Your task to perform on an android device: Open my contact list Image 0: 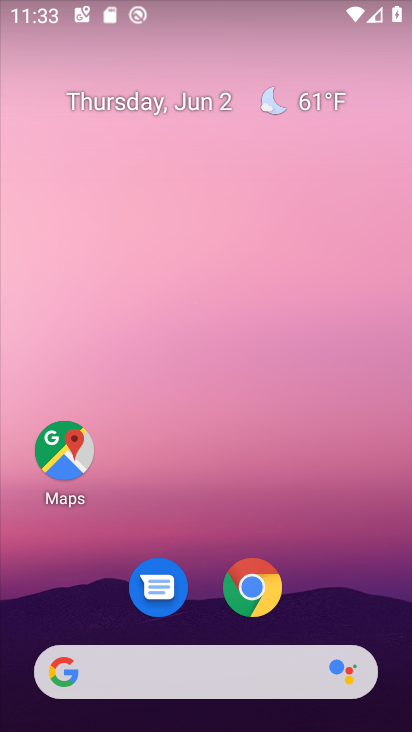
Step 0: drag from (209, 501) to (200, 0)
Your task to perform on an android device: Open my contact list Image 1: 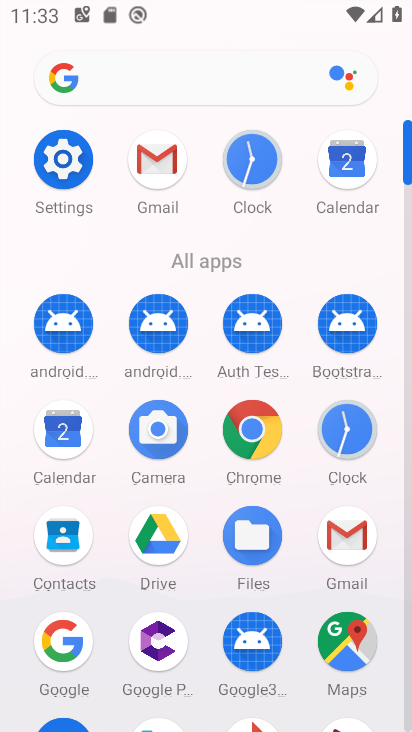
Step 1: click (66, 535)
Your task to perform on an android device: Open my contact list Image 2: 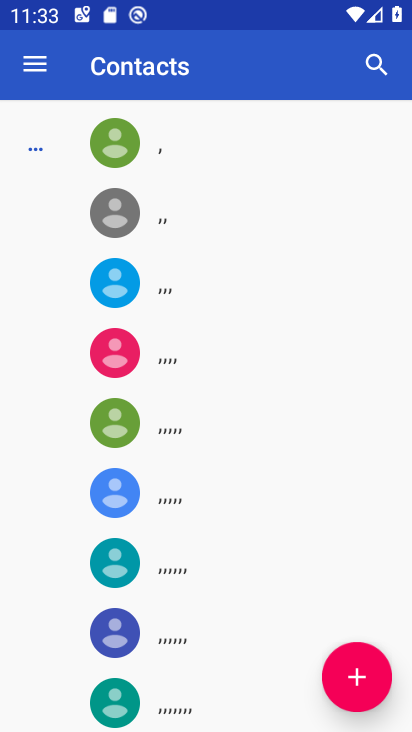
Step 2: task complete